Your task to perform on an android device: Open the stopwatch Image 0: 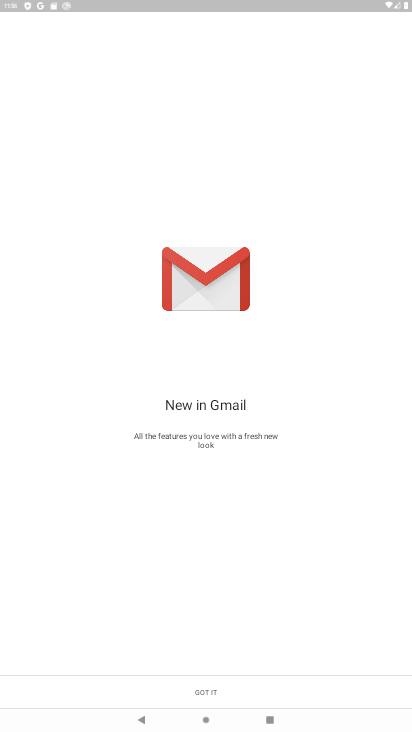
Step 0: press home button
Your task to perform on an android device: Open the stopwatch Image 1: 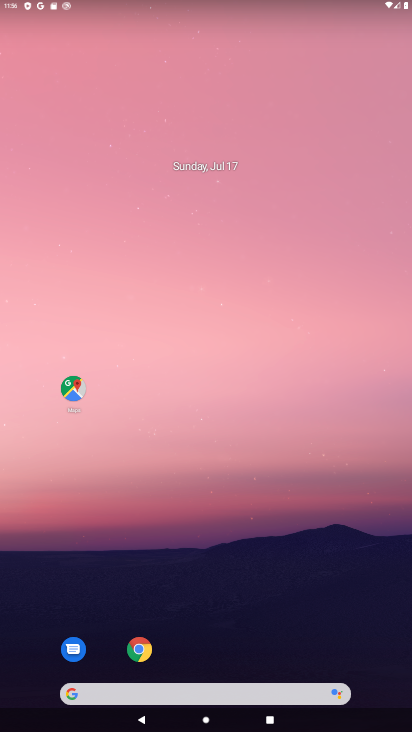
Step 1: drag from (195, 662) to (263, 82)
Your task to perform on an android device: Open the stopwatch Image 2: 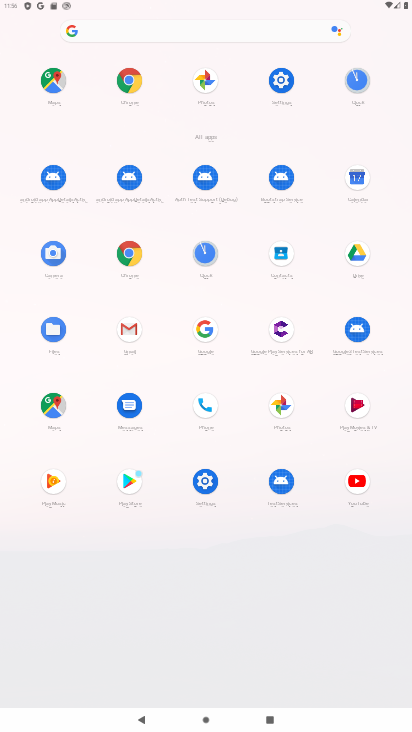
Step 2: click (365, 91)
Your task to perform on an android device: Open the stopwatch Image 3: 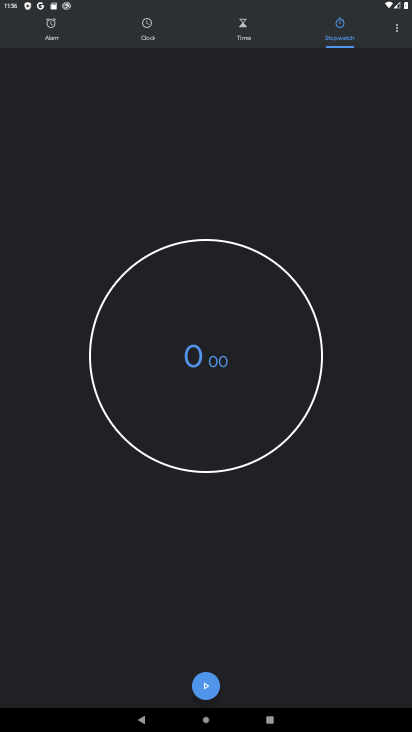
Step 3: task complete